Your task to perform on an android device: change the clock display to analog Image 0: 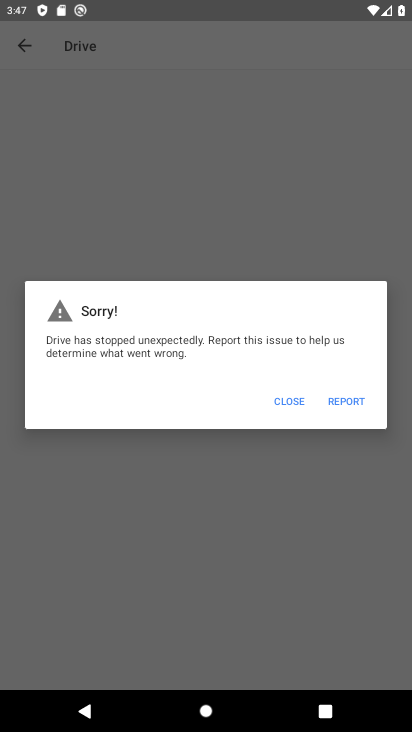
Step 0: drag from (173, 555) to (236, 447)
Your task to perform on an android device: change the clock display to analog Image 1: 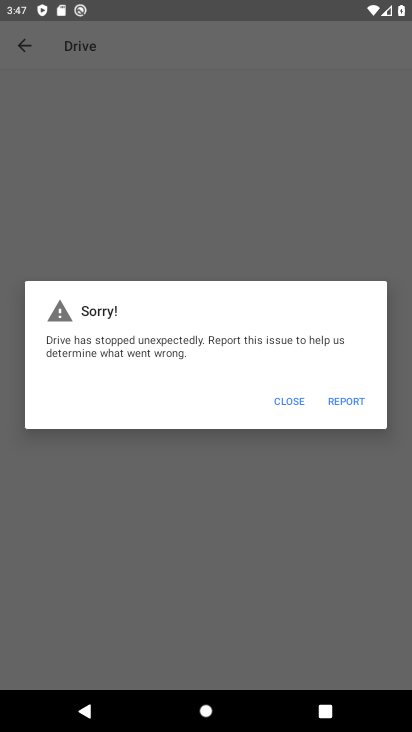
Step 1: press home button
Your task to perform on an android device: change the clock display to analog Image 2: 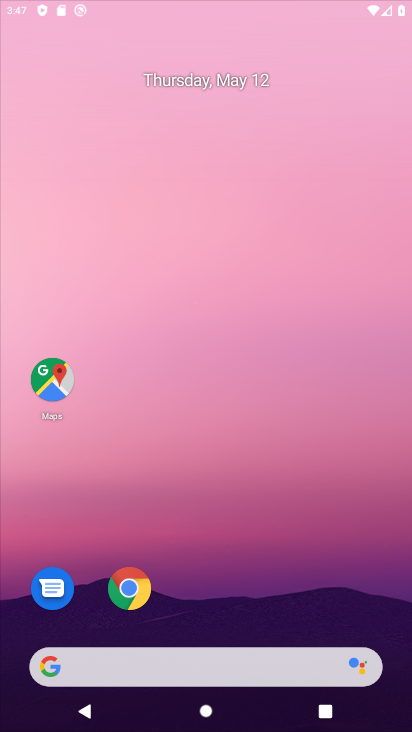
Step 2: drag from (242, 525) to (297, 10)
Your task to perform on an android device: change the clock display to analog Image 3: 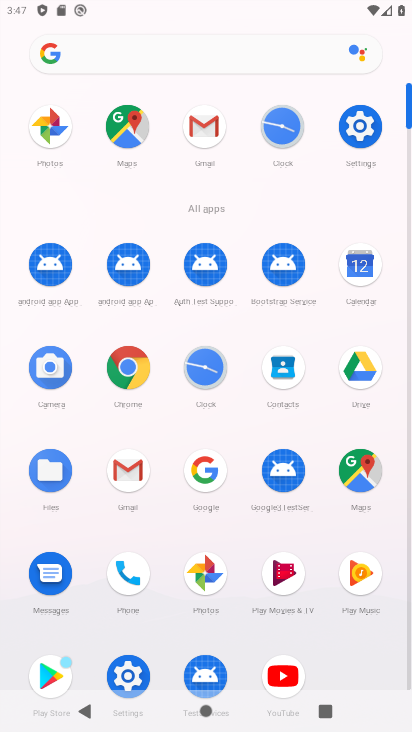
Step 3: click (208, 368)
Your task to perform on an android device: change the clock display to analog Image 4: 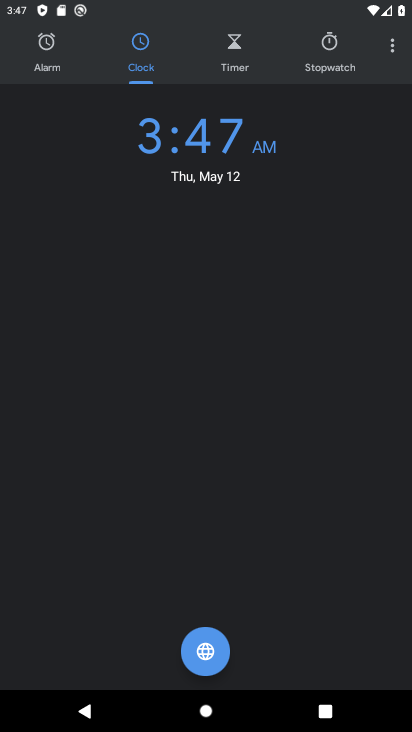
Step 4: drag from (393, 58) to (304, 113)
Your task to perform on an android device: change the clock display to analog Image 5: 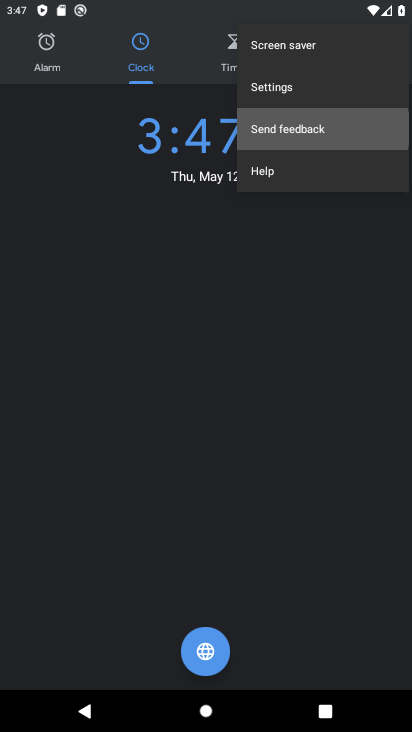
Step 5: click (308, 90)
Your task to perform on an android device: change the clock display to analog Image 6: 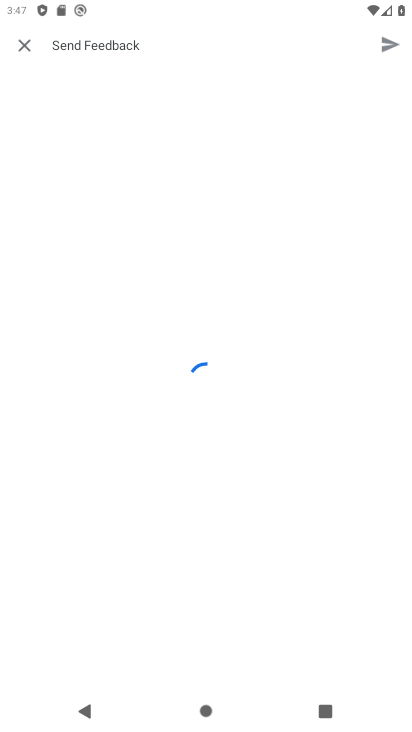
Step 6: click (24, 39)
Your task to perform on an android device: change the clock display to analog Image 7: 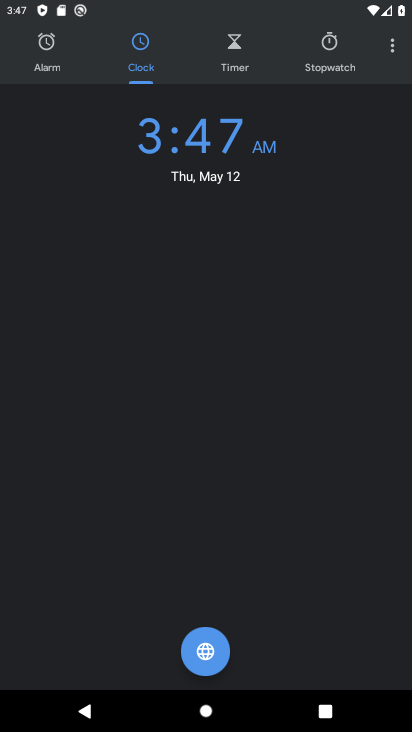
Step 7: drag from (397, 39) to (290, 95)
Your task to perform on an android device: change the clock display to analog Image 8: 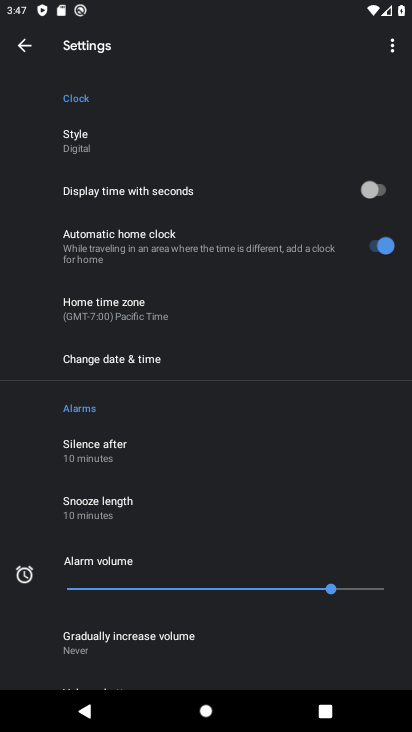
Step 8: click (127, 152)
Your task to perform on an android device: change the clock display to analog Image 9: 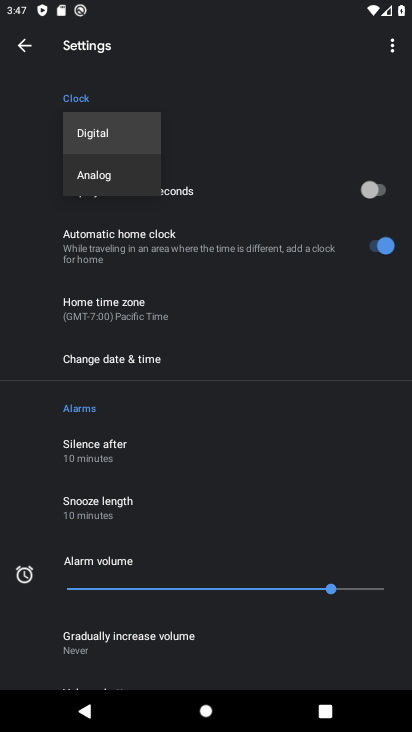
Step 9: click (116, 172)
Your task to perform on an android device: change the clock display to analog Image 10: 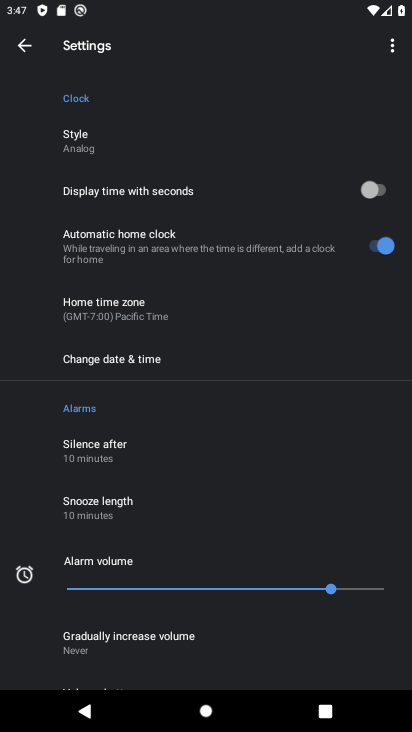
Step 10: task complete